Your task to perform on an android device: Open CNN.com Image 0: 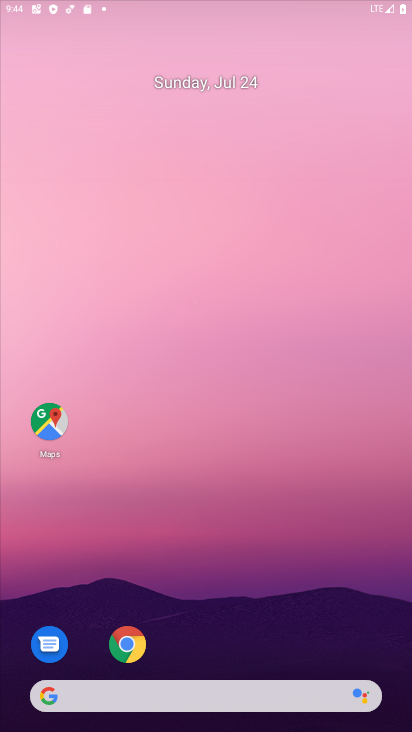
Step 0: drag from (243, 685) to (258, 159)
Your task to perform on an android device: Open CNN.com Image 1: 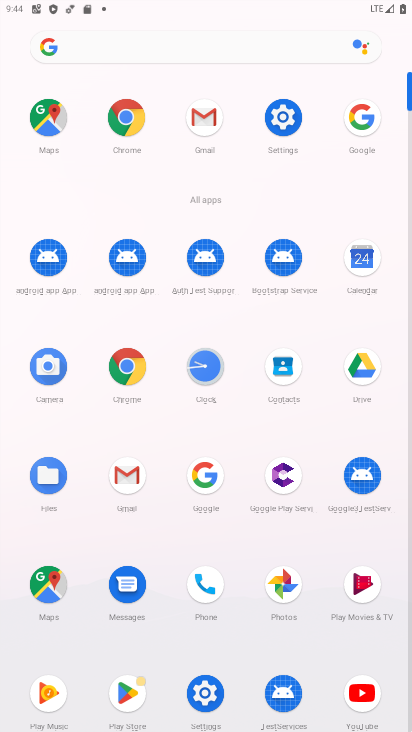
Step 1: click (362, 123)
Your task to perform on an android device: Open CNN.com Image 2: 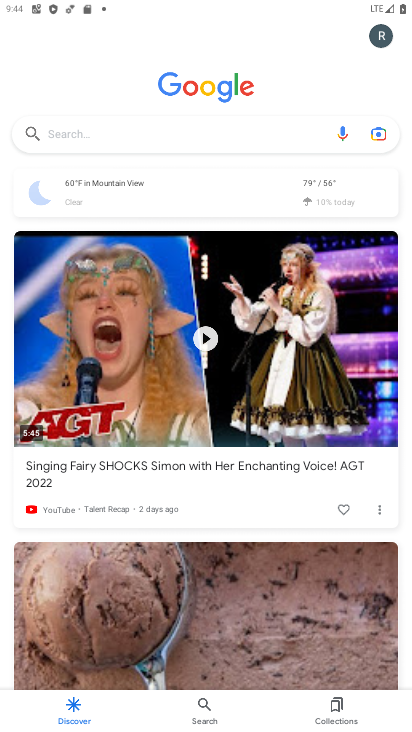
Step 2: click (134, 136)
Your task to perform on an android device: Open CNN.com Image 3: 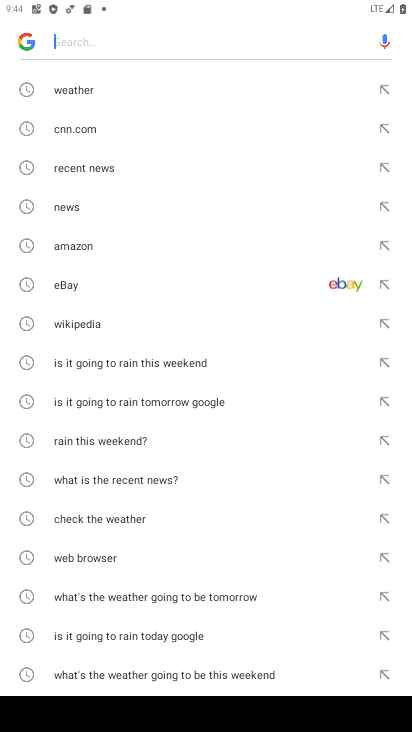
Step 3: click (99, 124)
Your task to perform on an android device: Open CNN.com Image 4: 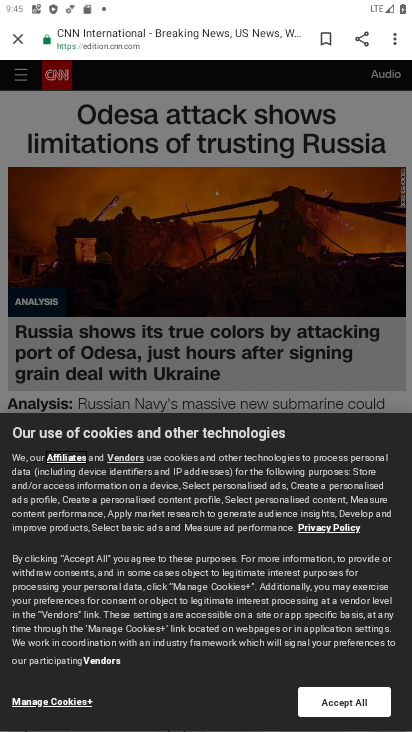
Step 4: task complete